Your task to perform on an android device: Go to internet settings Image 0: 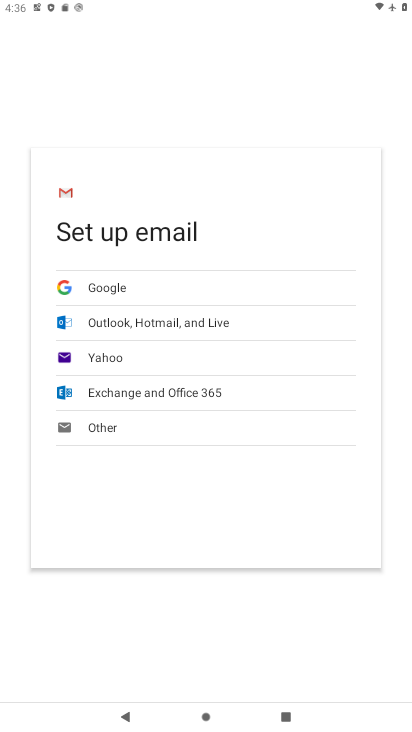
Step 0: press home button
Your task to perform on an android device: Go to internet settings Image 1: 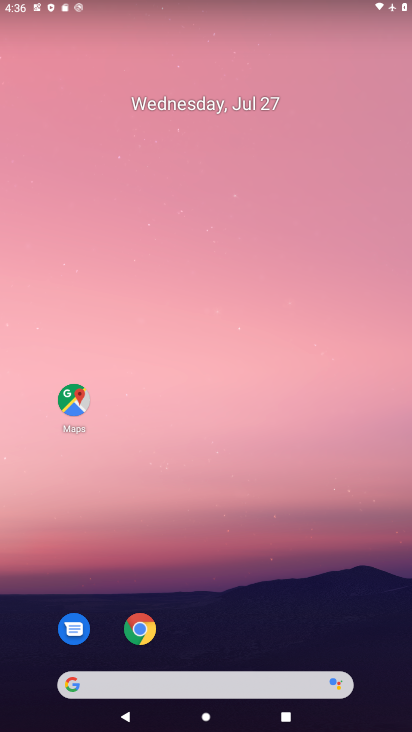
Step 1: drag from (178, 655) to (144, 335)
Your task to perform on an android device: Go to internet settings Image 2: 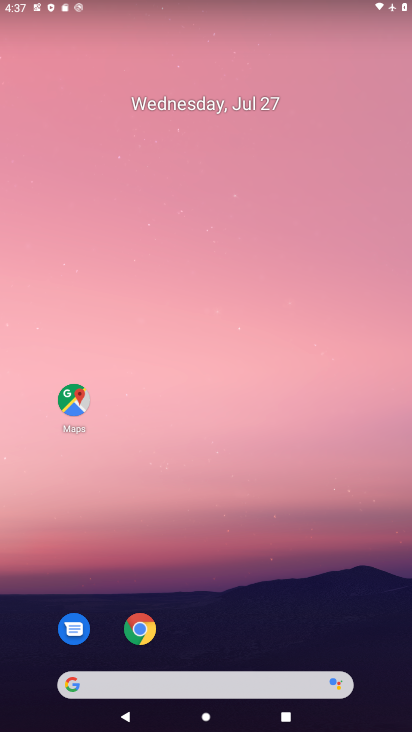
Step 2: click (182, 643)
Your task to perform on an android device: Go to internet settings Image 3: 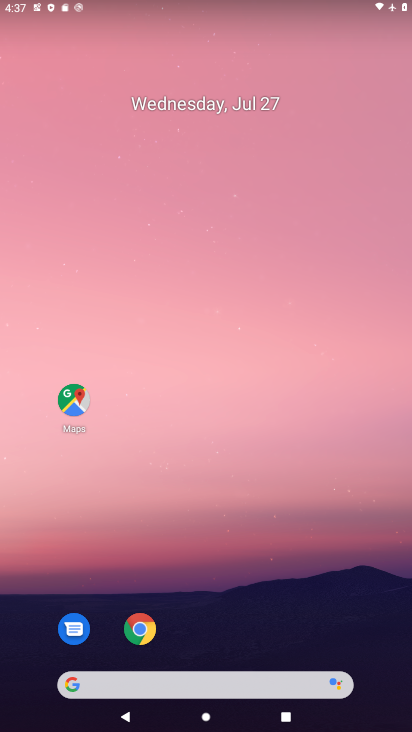
Step 3: click (198, 658)
Your task to perform on an android device: Go to internet settings Image 4: 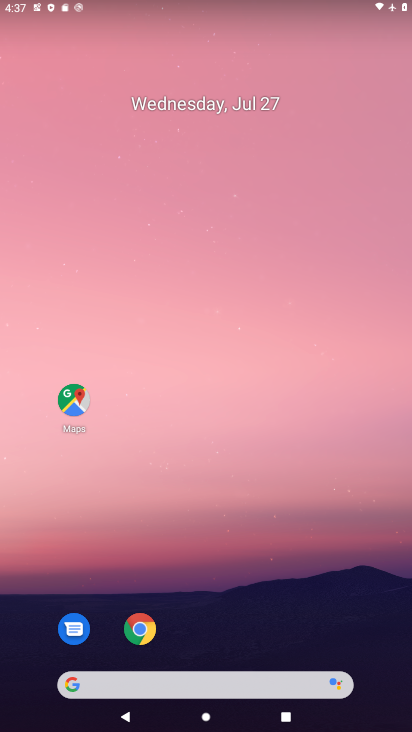
Step 4: click (198, 658)
Your task to perform on an android device: Go to internet settings Image 5: 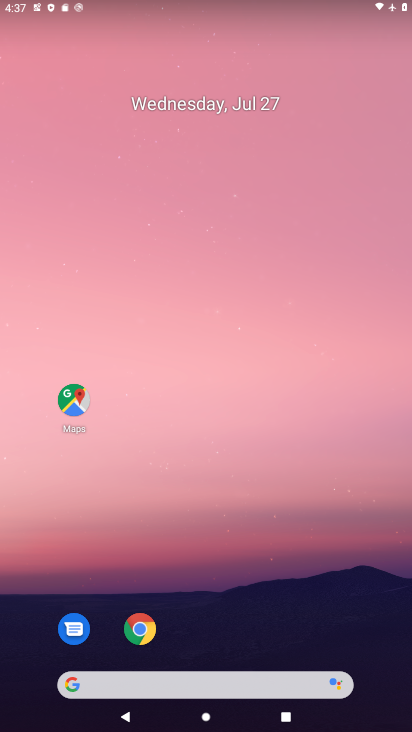
Step 5: drag from (198, 658) to (160, 4)
Your task to perform on an android device: Go to internet settings Image 6: 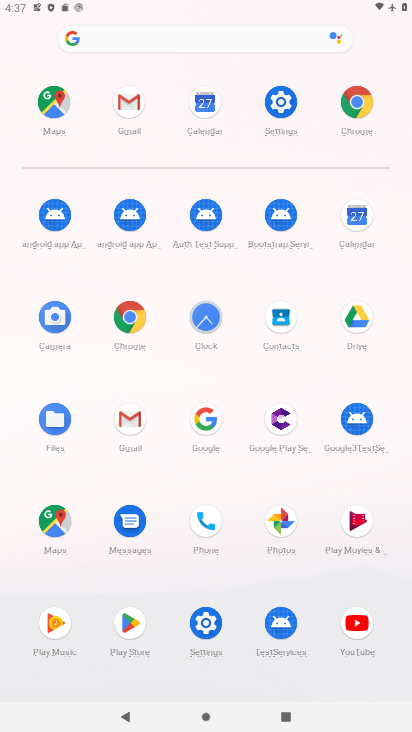
Step 6: click (280, 111)
Your task to perform on an android device: Go to internet settings Image 7: 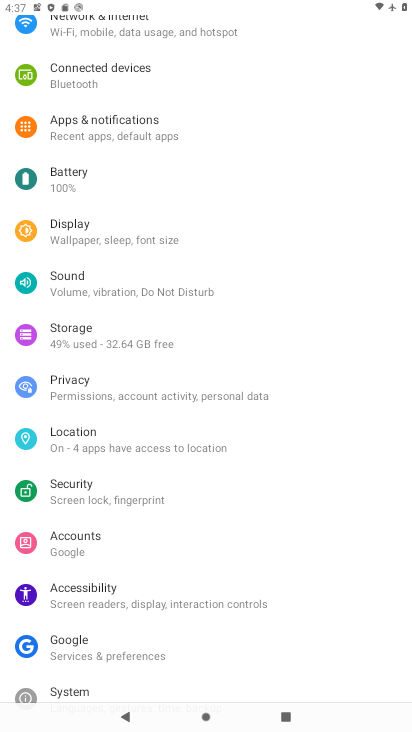
Step 7: drag from (280, 111) to (206, 517)
Your task to perform on an android device: Go to internet settings Image 8: 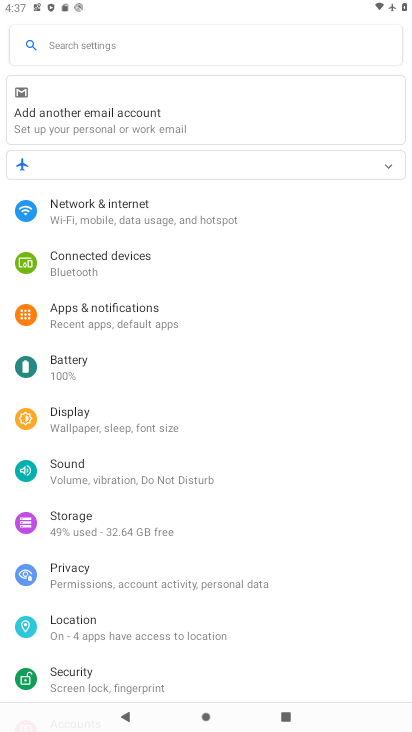
Step 8: click (98, 212)
Your task to perform on an android device: Go to internet settings Image 9: 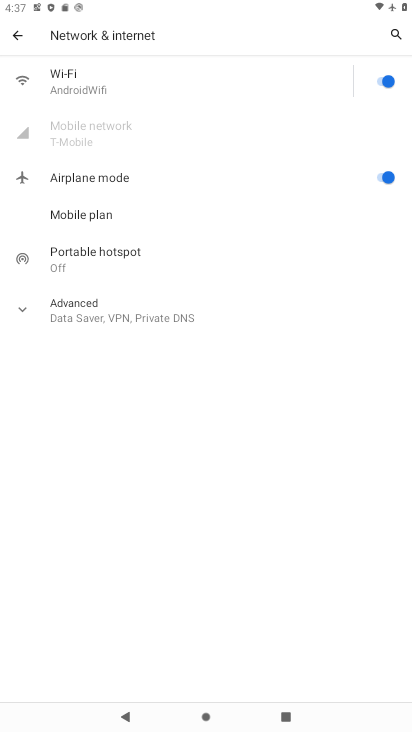
Step 9: task complete